Your task to perform on an android device: check google app version Image 0: 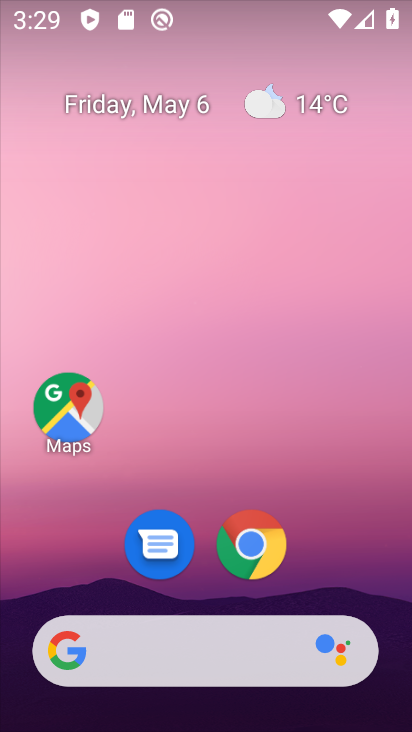
Step 0: drag from (107, 626) to (249, 49)
Your task to perform on an android device: check google app version Image 1: 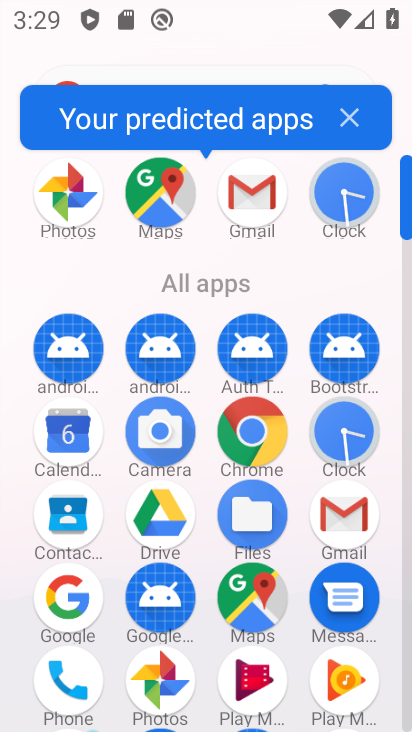
Step 1: drag from (148, 575) to (229, 330)
Your task to perform on an android device: check google app version Image 2: 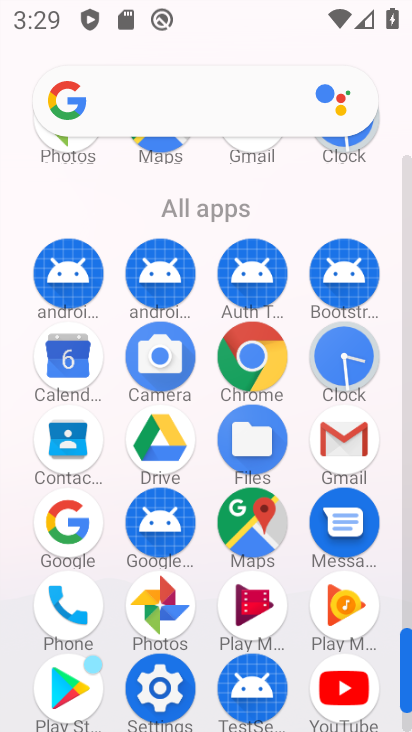
Step 2: click (164, 684)
Your task to perform on an android device: check google app version Image 3: 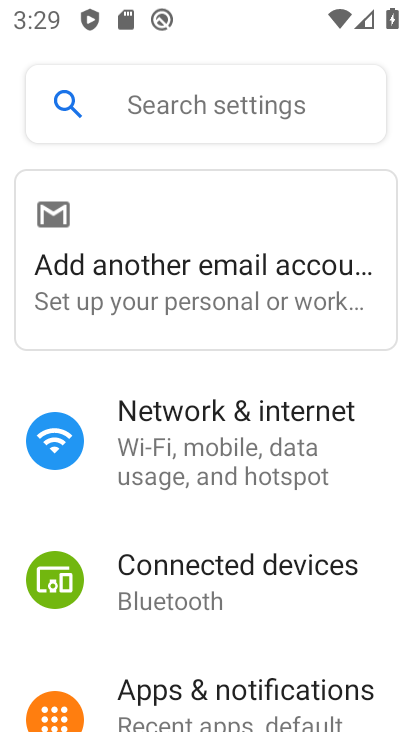
Step 3: click (155, 689)
Your task to perform on an android device: check google app version Image 4: 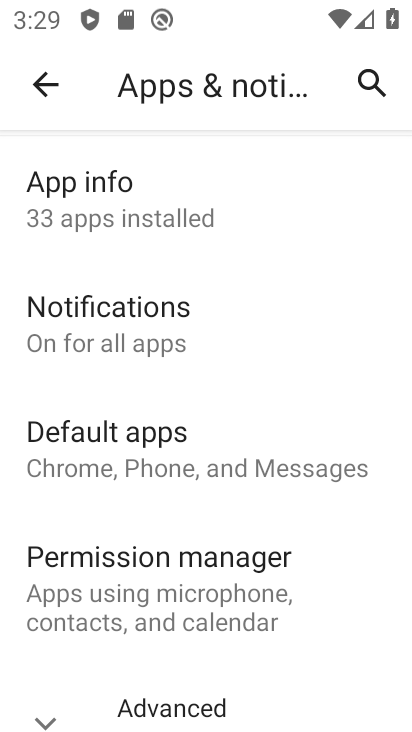
Step 4: click (202, 230)
Your task to perform on an android device: check google app version Image 5: 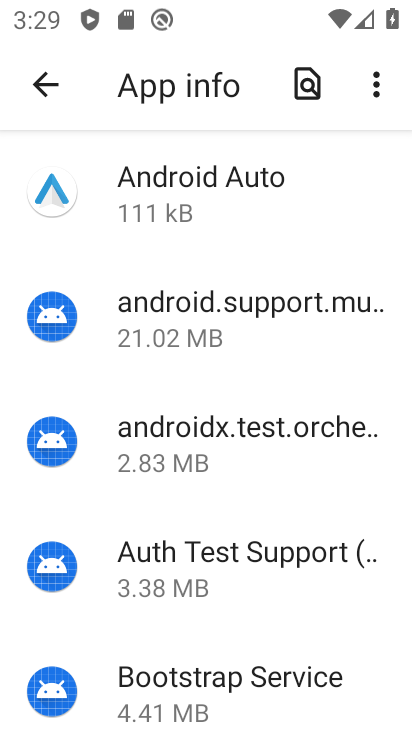
Step 5: drag from (118, 645) to (324, 172)
Your task to perform on an android device: check google app version Image 6: 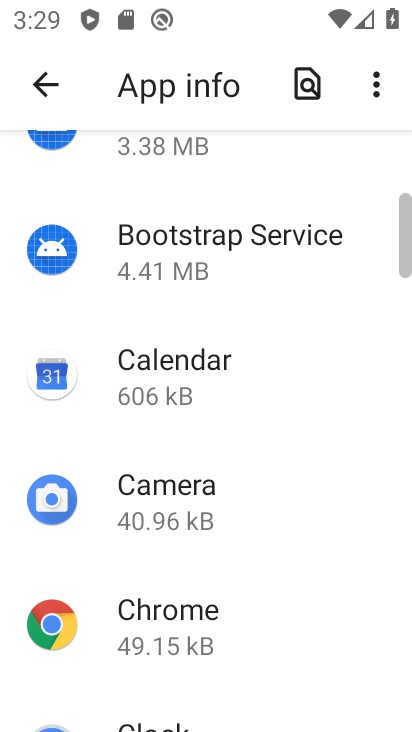
Step 6: drag from (177, 603) to (336, 194)
Your task to perform on an android device: check google app version Image 7: 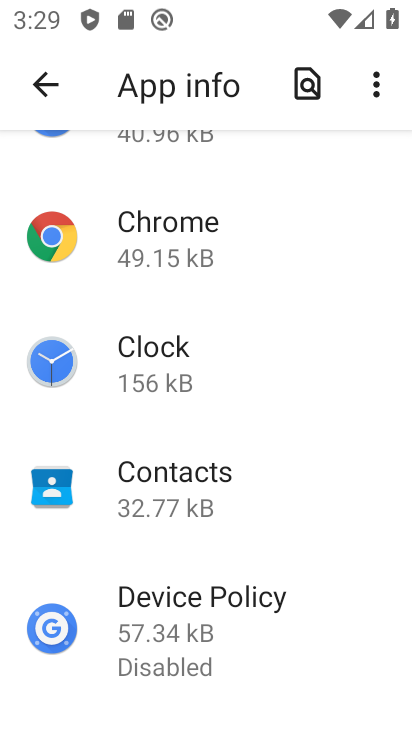
Step 7: drag from (229, 620) to (378, 199)
Your task to perform on an android device: check google app version Image 8: 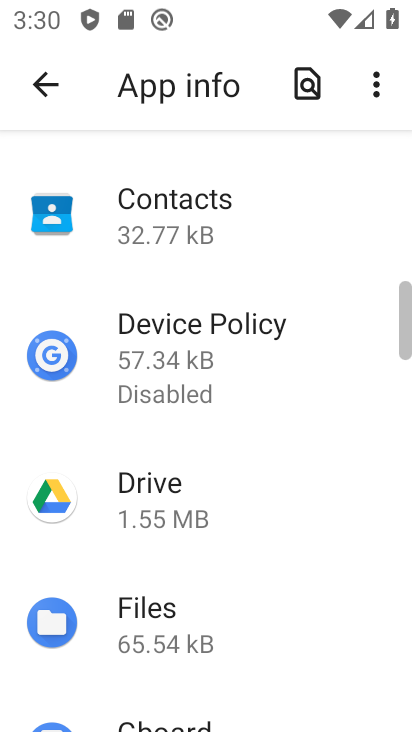
Step 8: drag from (194, 568) to (314, 165)
Your task to perform on an android device: check google app version Image 9: 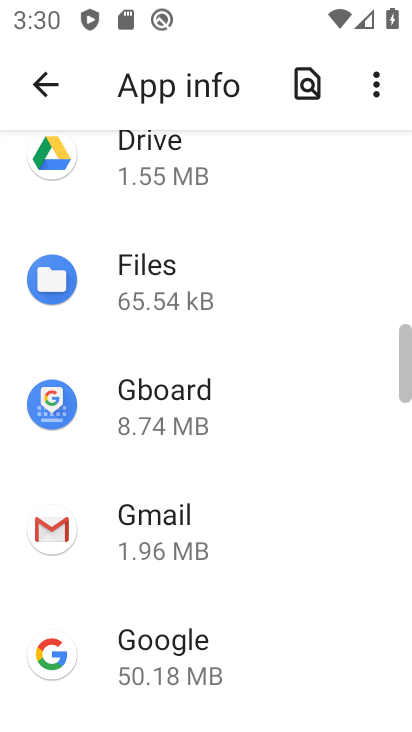
Step 9: drag from (168, 587) to (230, 417)
Your task to perform on an android device: check google app version Image 10: 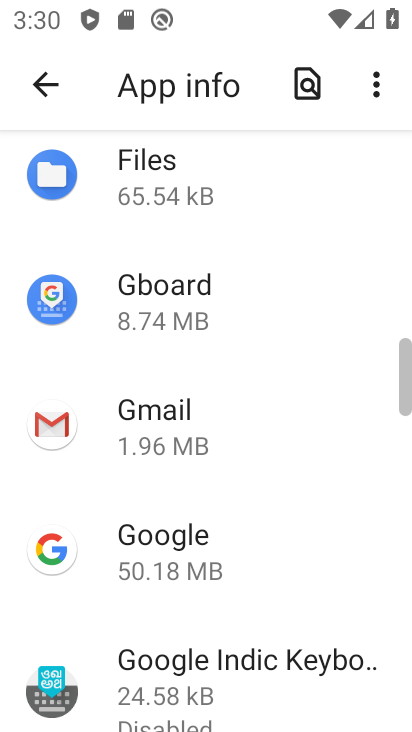
Step 10: click (160, 550)
Your task to perform on an android device: check google app version Image 11: 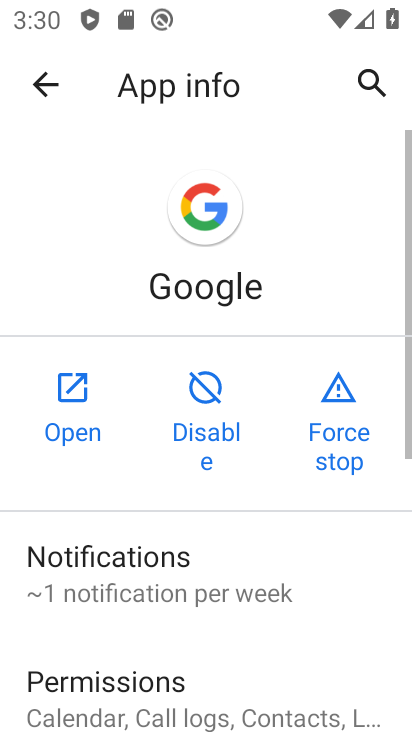
Step 11: drag from (90, 630) to (278, 99)
Your task to perform on an android device: check google app version Image 12: 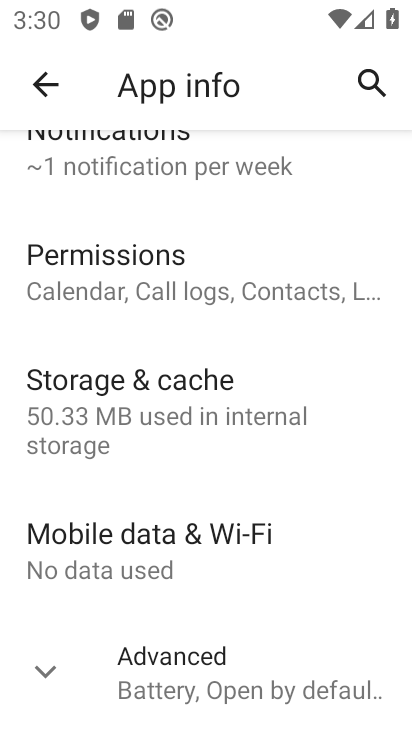
Step 12: click (171, 655)
Your task to perform on an android device: check google app version Image 13: 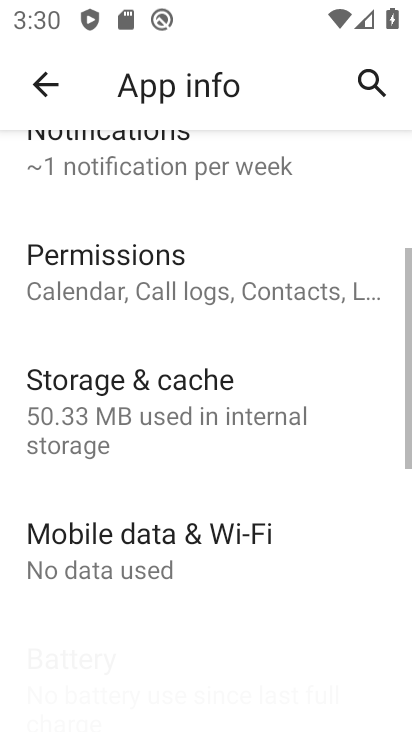
Step 13: task complete